Your task to perform on an android device: check android version Image 0: 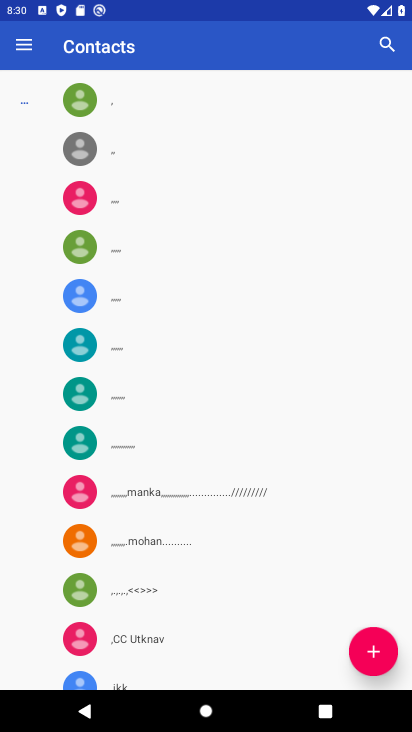
Step 0: press home button
Your task to perform on an android device: check android version Image 1: 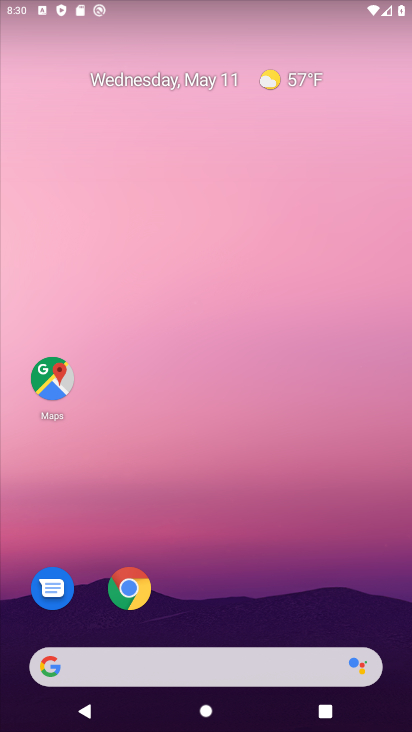
Step 1: drag from (270, 705) to (329, 24)
Your task to perform on an android device: check android version Image 2: 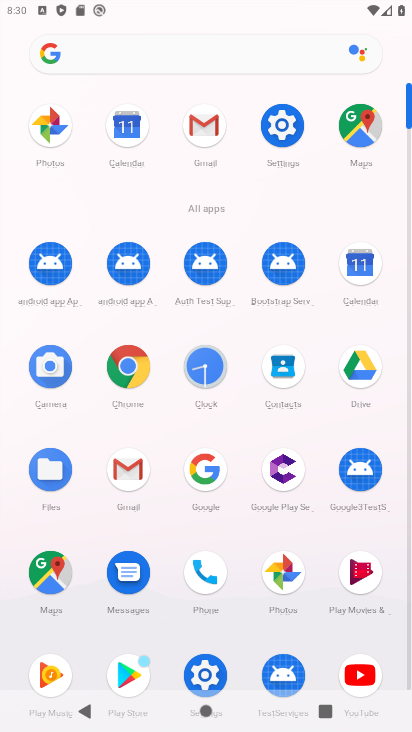
Step 2: click (194, 672)
Your task to perform on an android device: check android version Image 3: 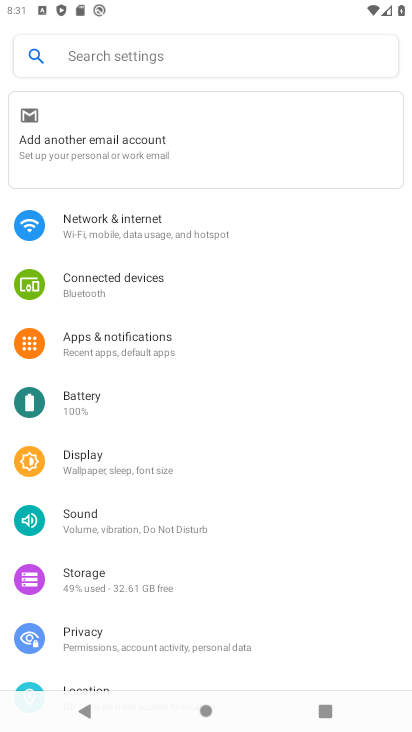
Step 3: drag from (225, 582) to (154, 68)
Your task to perform on an android device: check android version Image 4: 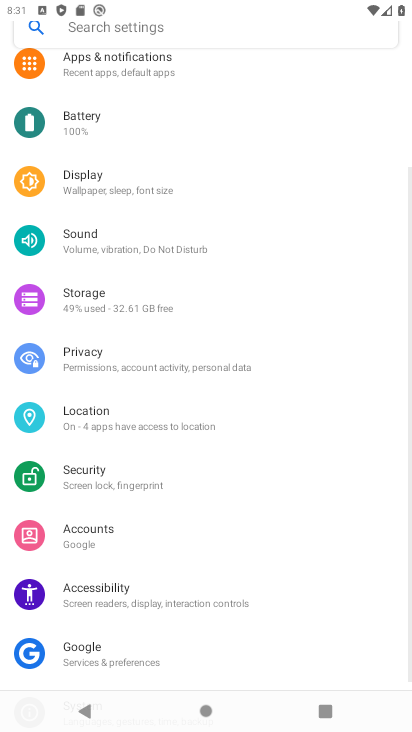
Step 4: drag from (190, 640) to (188, 7)
Your task to perform on an android device: check android version Image 5: 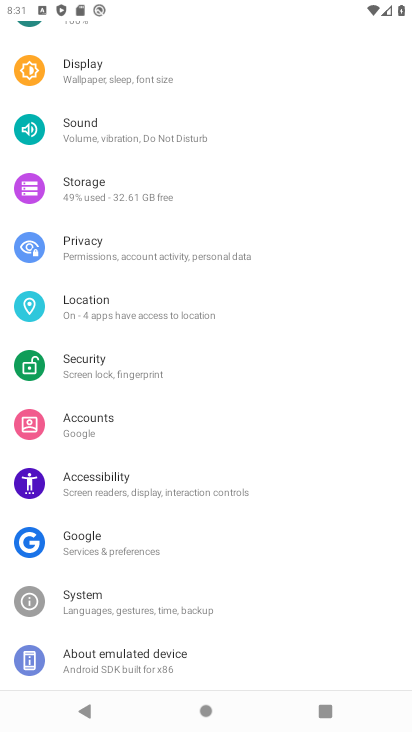
Step 5: click (159, 667)
Your task to perform on an android device: check android version Image 6: 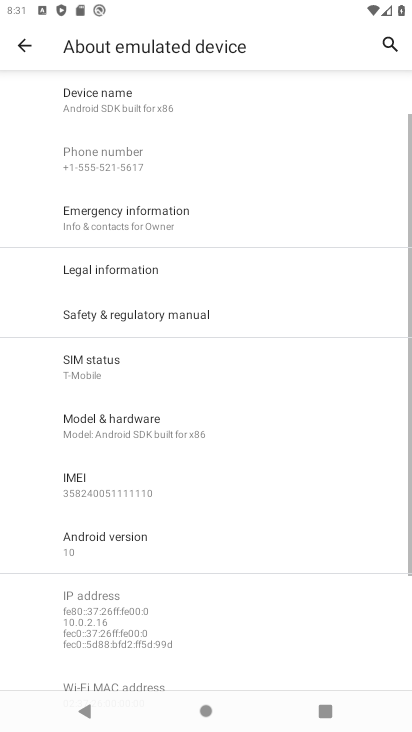
Step 6: task complete